Your task to perform on an android device: Search for pizza restaurants on Maps Image 0: 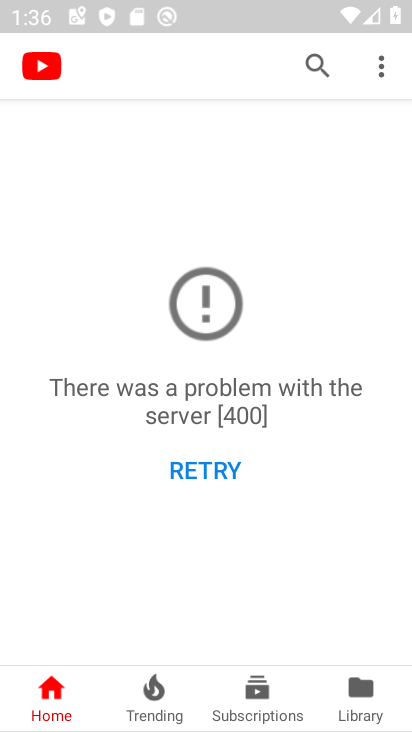
Step 0: press back button
Your task to perform on an android device: Search for pizza restaurants on Maps Image 1: 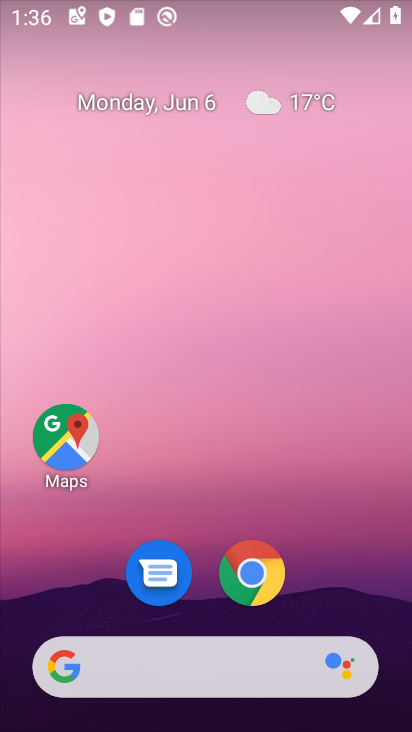
Step 1: click (58, 432)
Your task to perform on an android device: Search for pizza restaurants on Maps Image 2: 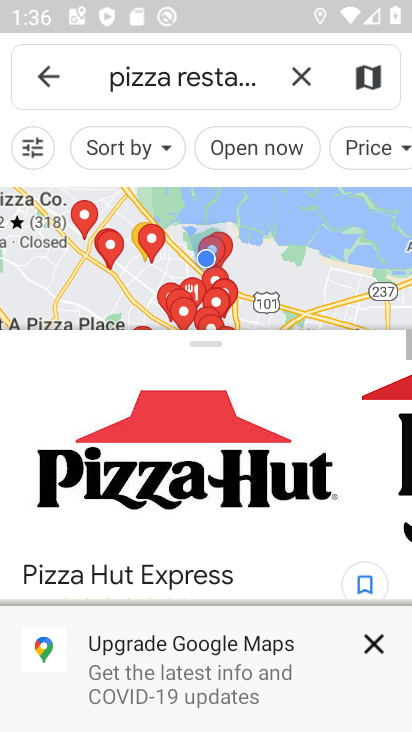
Step 2: task complete